Your task to perform on an android device: Play the last video I watched on Youtube Image 0: 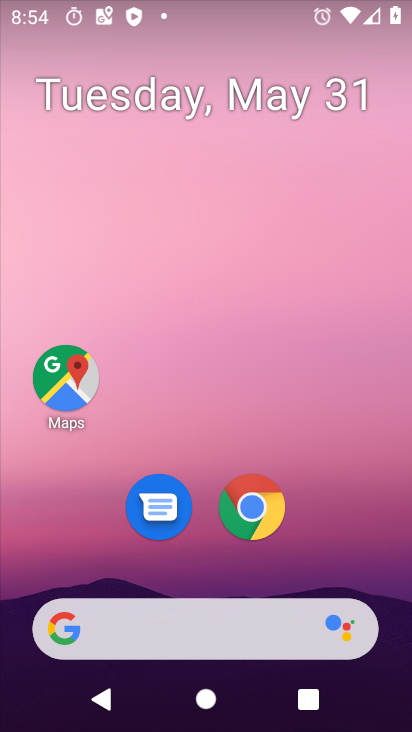
Step 0: drag from (345, 584) to (312, 11)
Your task to perform on an android device: Play the last video I watched on Youtube Image 1: 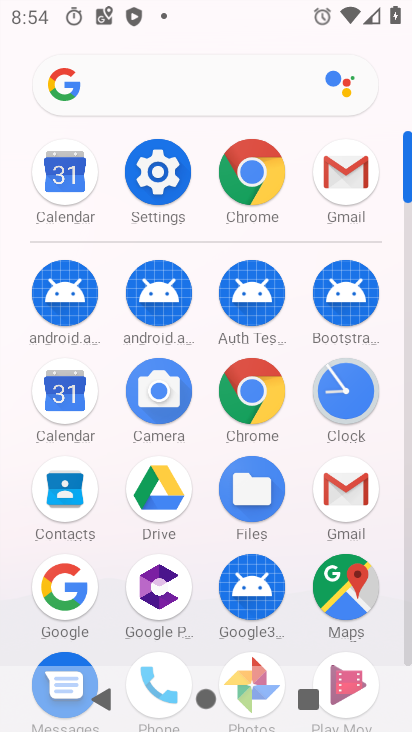
Step 1: drag from (404, 541) to (385, 410)
Your task to perform on an android device: Play the last video I watched on Youtube Image 2: 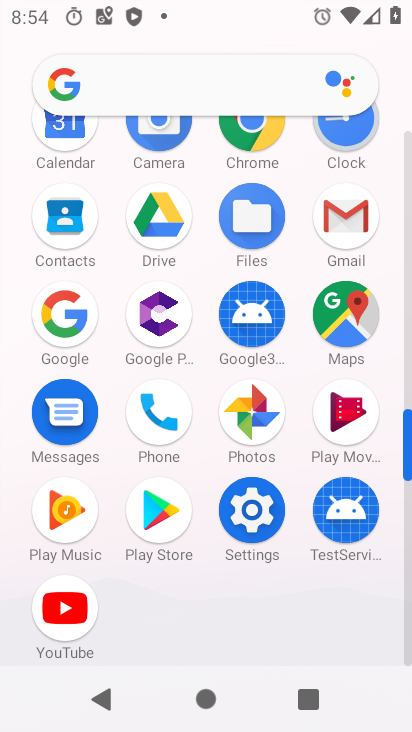
Step 2: click (61, 603)
Your task to perform on an android device: Play the last video I watched on Youtube Image 3: 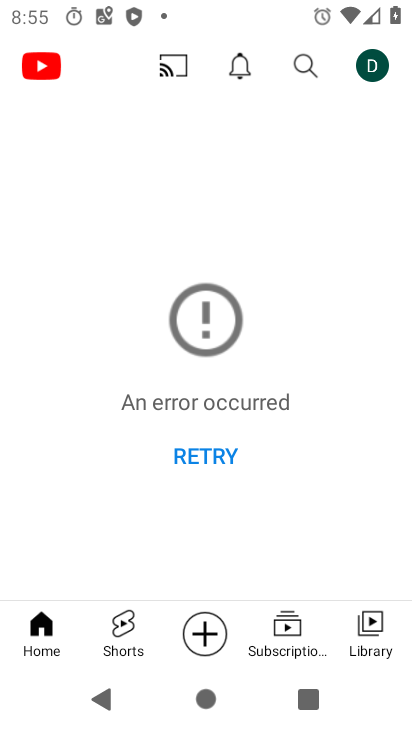
Step 3: click (360, 648)
Your task to perform on an android device: Play the last video I watched on Youtube Image 4: 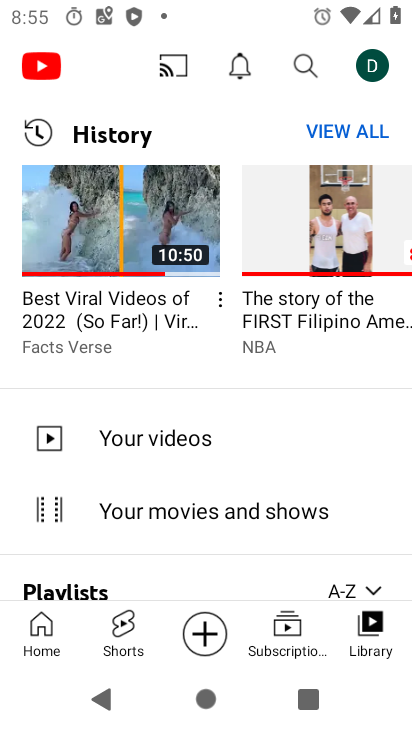
Step 4: drag from (288, 493) to (264, 244)
Your task to perform on an android device: Play the last video I watched on Youtube Image 5: 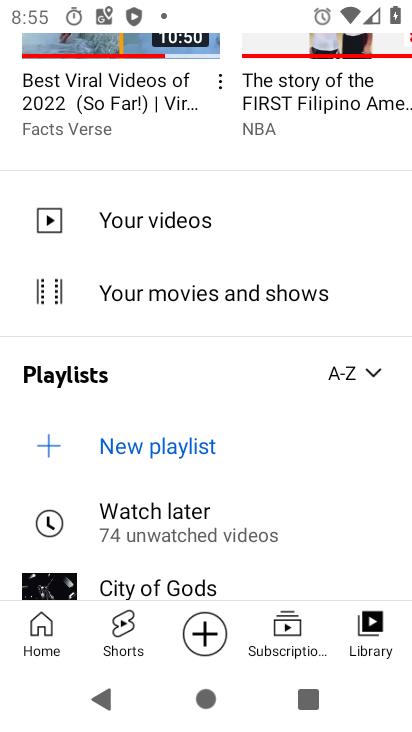
Step 5: drag from (239, 501) to (215, 205)
Your task to perform on an android device: Play the last video I watched on Youtube Image 6: 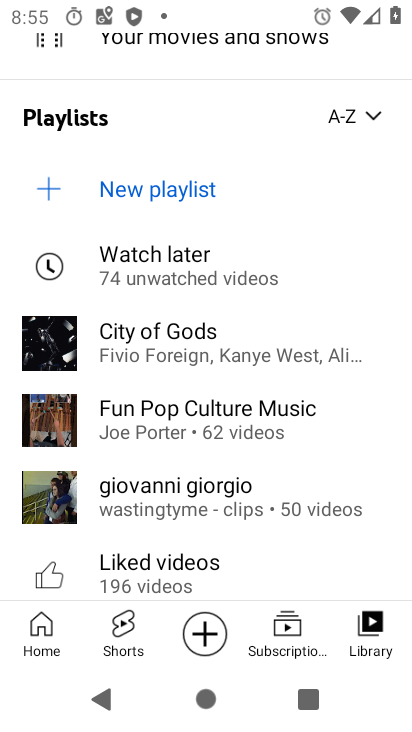
Step 6: drag from (237, 317) to (265, 602)
Your task to perform on an android device: Play the last video I watched on Youtube Image 7: 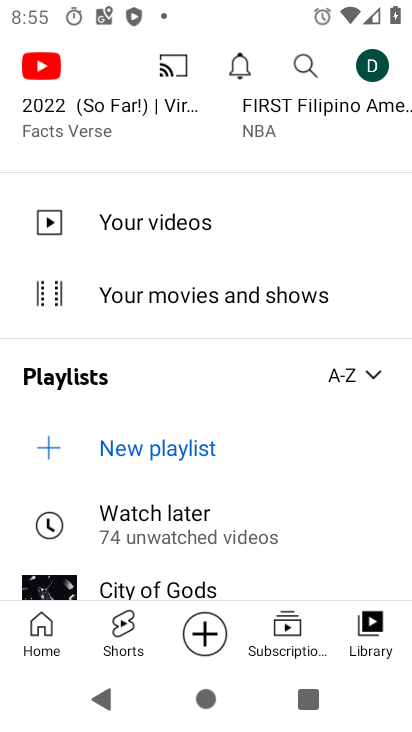
Step 7: drag from (224, 291) to (241, 494)
Your task to perform on an android device: Play the last video I watched on Youtube Image 8: 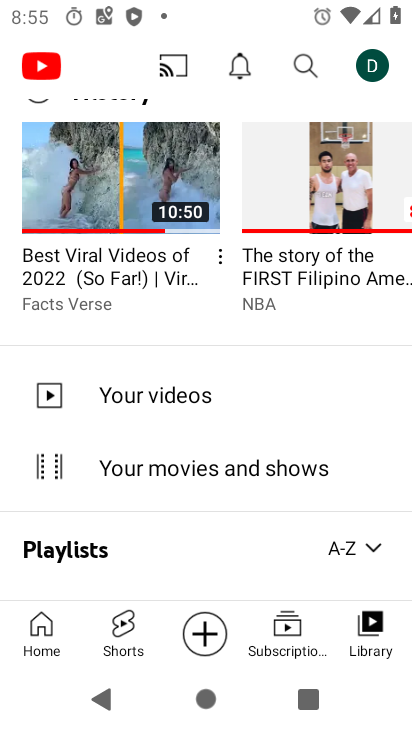
Step 8: drag from (101, 258) to (122, 469)
Your task to perform on an android device: Play the last video I watched on Youtube Image 9: 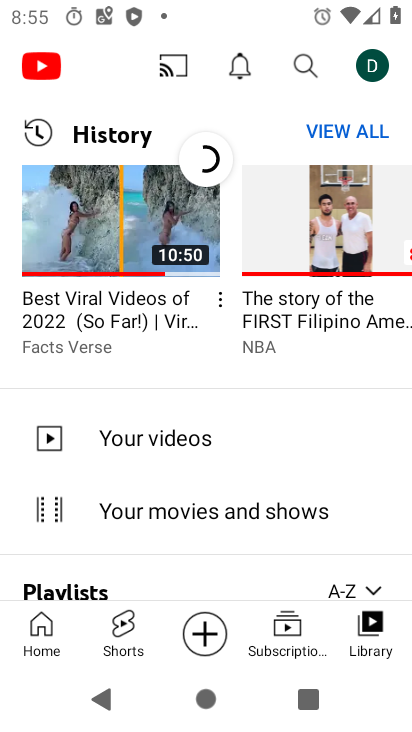
Step 9: click (80, 240)
Your task to perform on an android device: Play the last video I watched on Youtube Image 10: 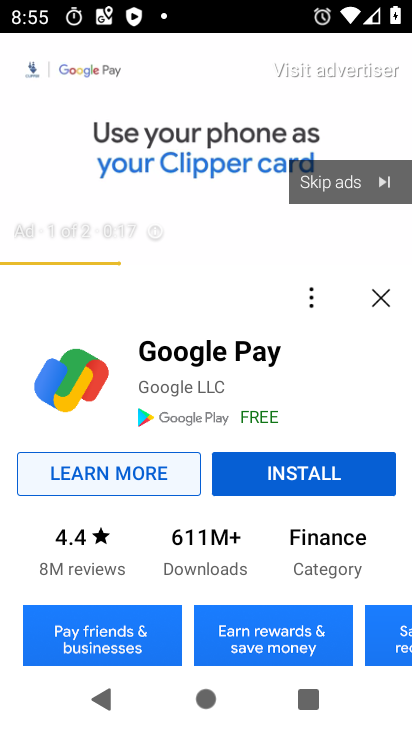
Step 10: click (343, 190)
Your task to perform on an android device: Play the last video I watched on Youtube Image 11: 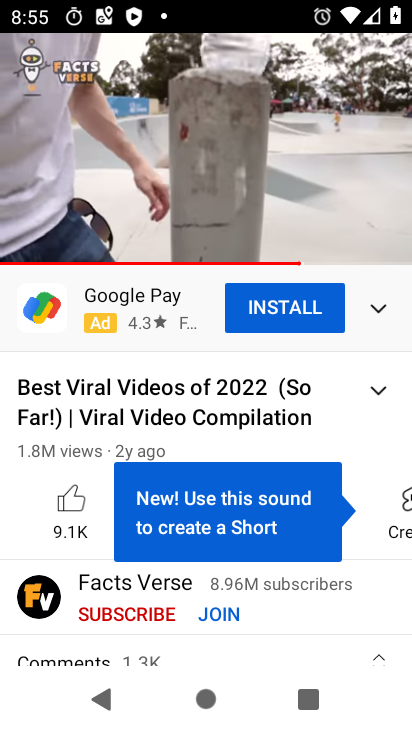
Step 11: click (197, 165)
Your task to perform on an android device: Play the last video I watched on Youtube Image 12: 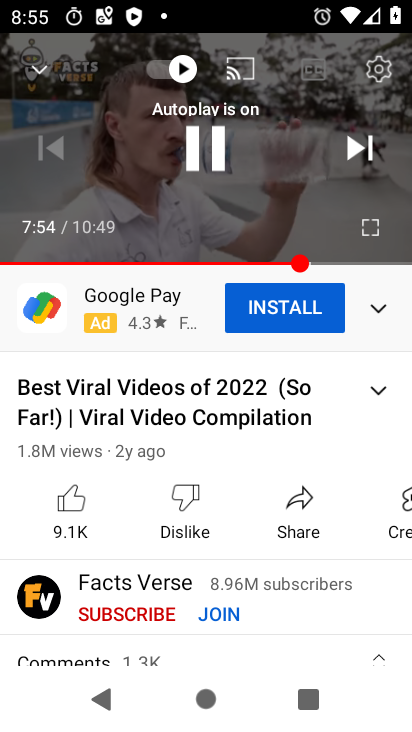
Step 12: click (206, 161)
Your task to perform on an android device: Play the last video I watched on Youtube Image 13: 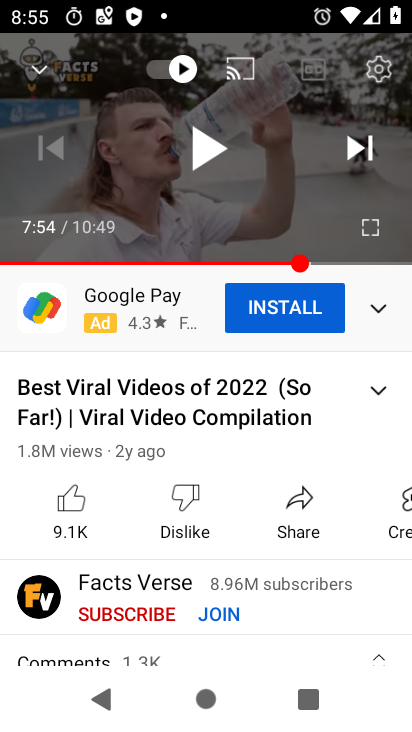
Step 13: task complete